Your task to perform on an android device: Check the news Image 0: 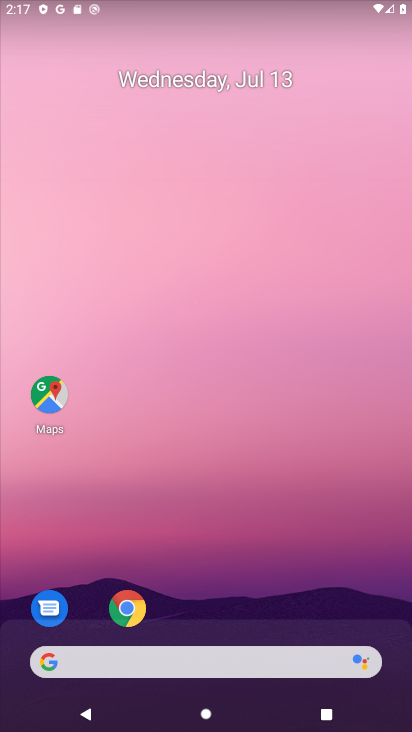
Step 0: drag from (236, 587) to (176, 275)
Your task to perform on an android device: Check the news Image 1: 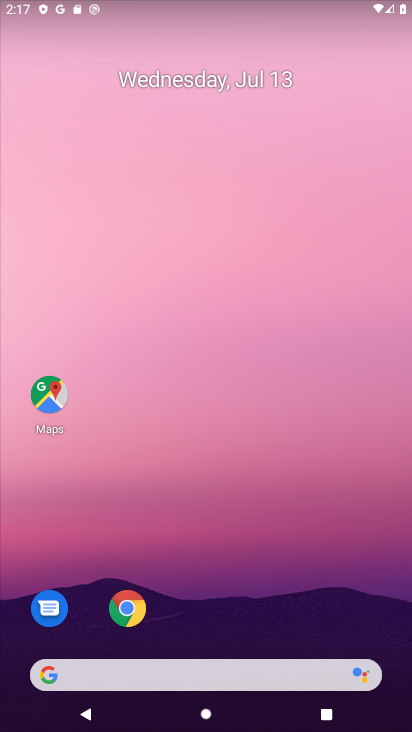
Step 1: click (133, 75)
Your task to perform on an android device: Check the news Image 2: 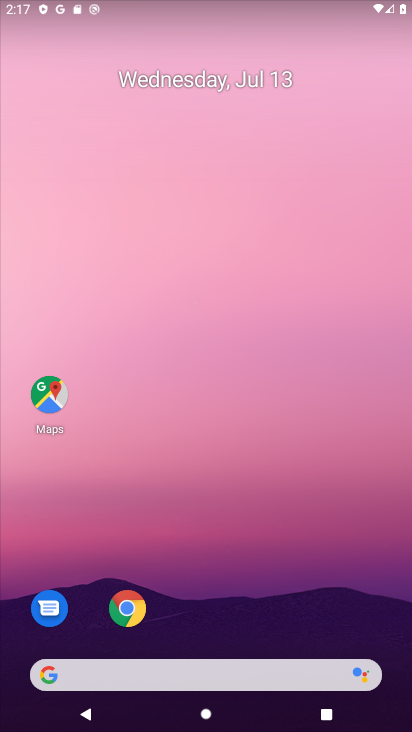
Step 2: click (167, 131)
Your task to perform on an android device: Check the news Image 3: 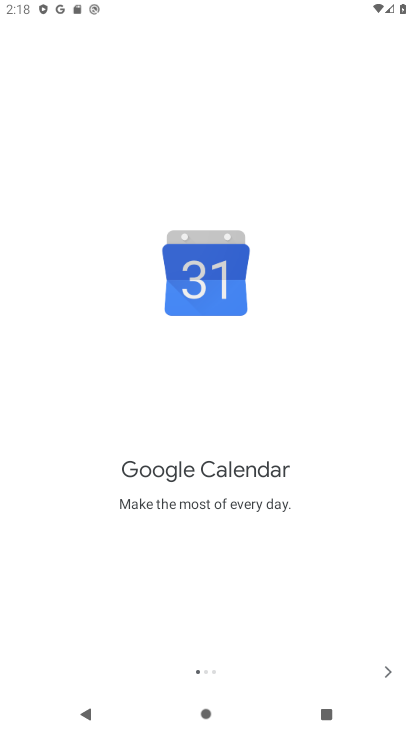
Step 3: press back button
Your task to perform on an android device: Check the news Image 4: 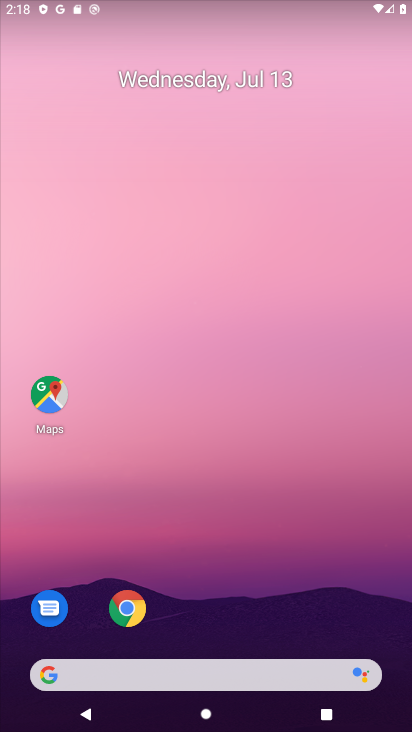
Step 4: drag from (208, 476) to (61, 50)
Your task to perform on an android device: Check the news Image 5: 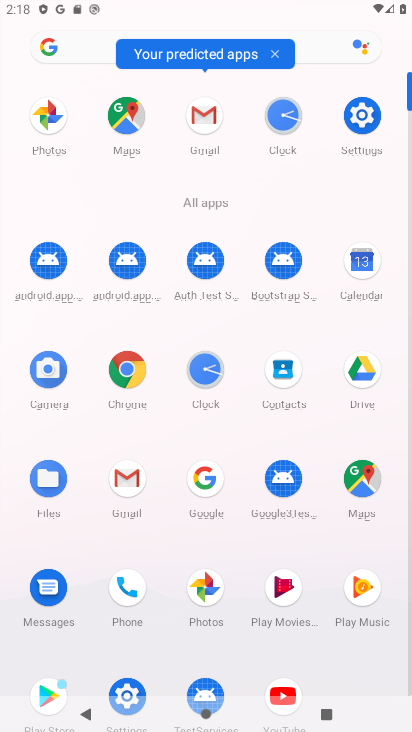
Step 5: click (129, 363)
Your task to perform on an android device: Check the news Image 6: 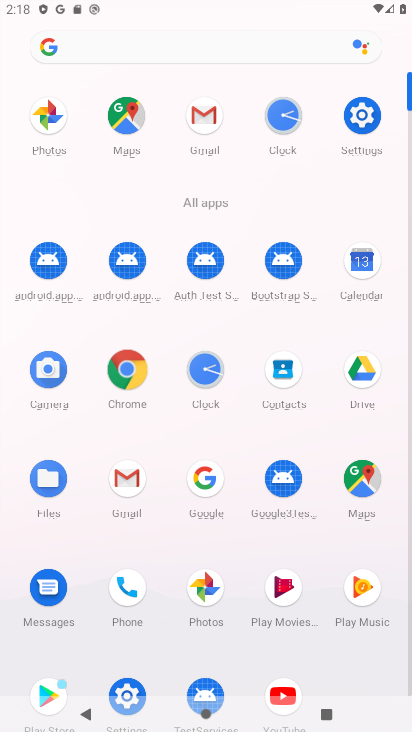
Step 6: click (121, 365)
Your task to perform on an android device: Check the news Image 7: 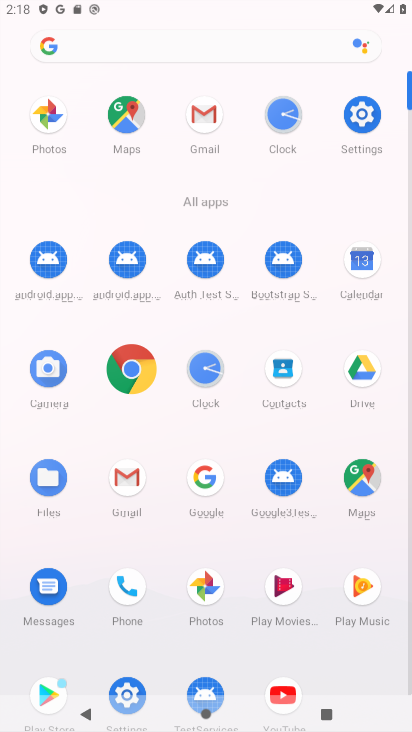
Step 7: click (124, 366)
Your task to perform on an android device: Check the news Image 8: 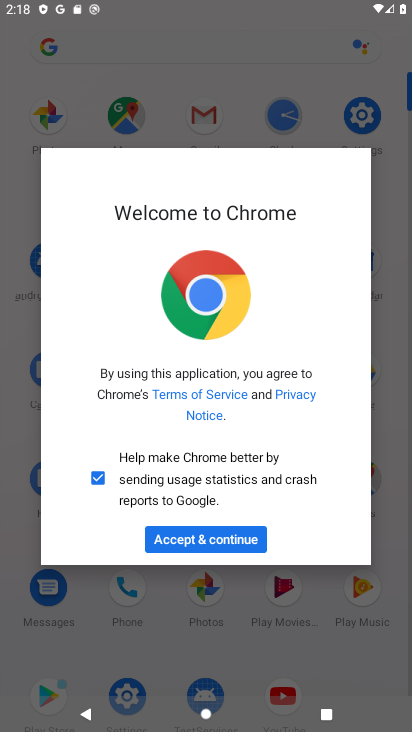
Step 8: click (201, 532)
Your task to perform on an android device: Check the news Image 9: 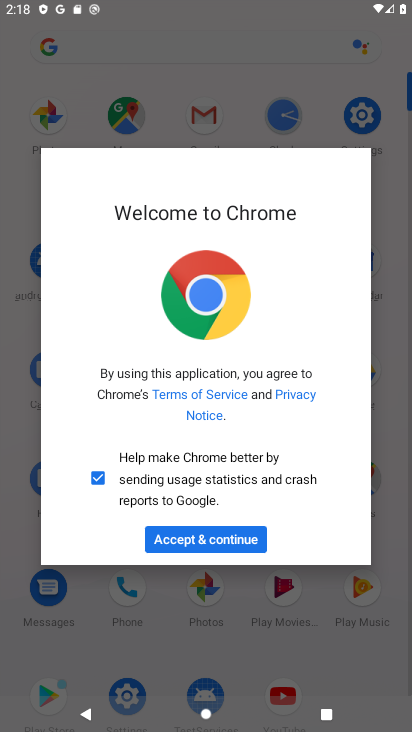
Step 9: click (201, 532)
Your task to perform on an android device: Check the news Image 10: 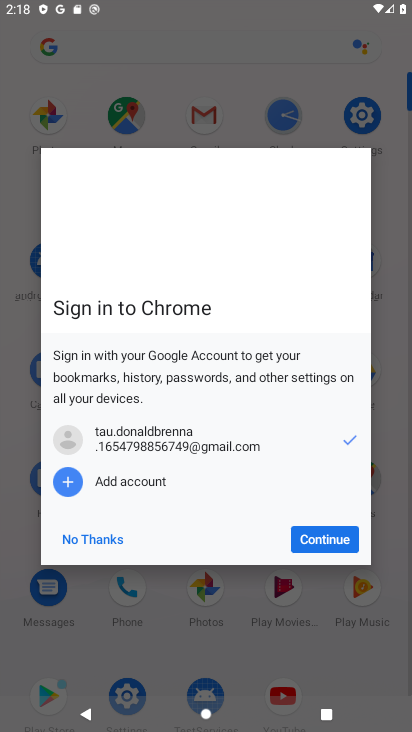
Step 10: click (330, 539)
Your task to perform on an android device: Check the news Image 11: 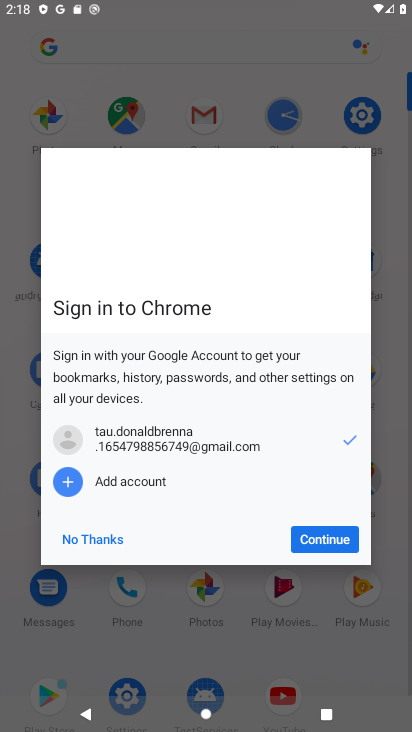
Step 11: click (332, 541)
Your task to perform on an android device: Check the news Image 12: 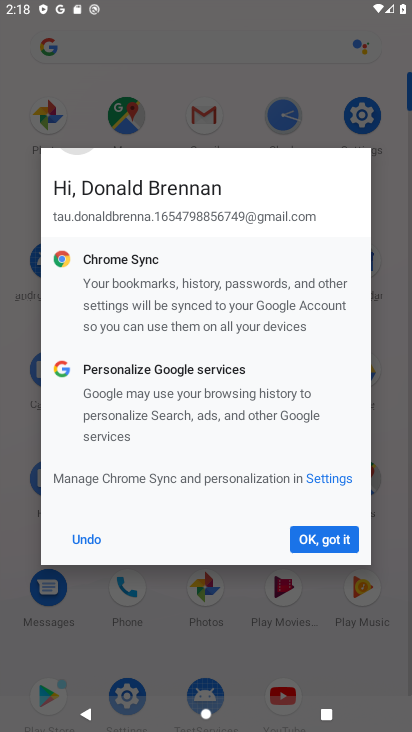
Step 12: click (311, 545)
Your task to perform on an android device: Check the news Image 13: 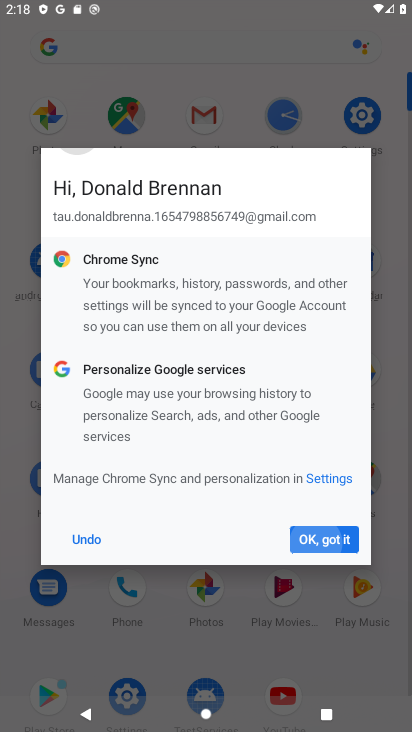
Step 13: click (282, 565)
Your task to perform on an android device: Check the news Image 14: 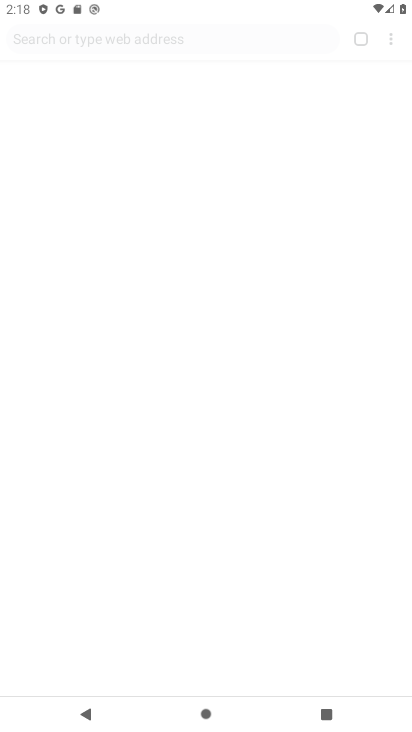
Step 14: click (314, 546)
Your task to perform on an android device: Check the news Image 15: 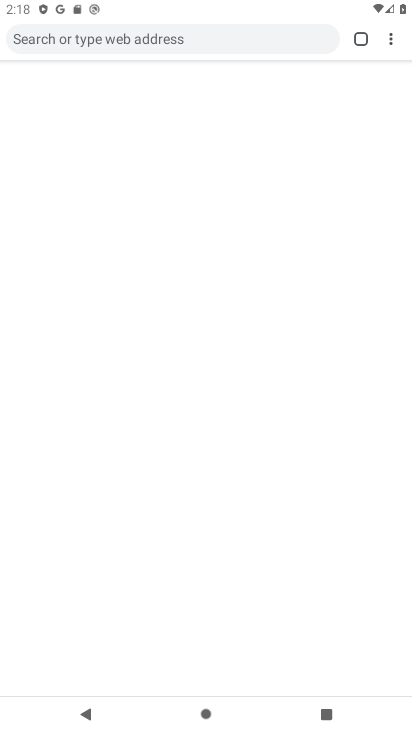
Step 15: click (314, 546)
Your task to perform on an android device: Check the news Image 16: 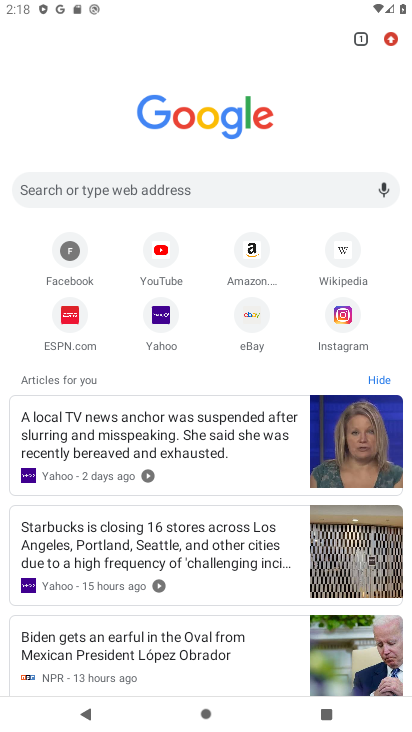
Step 16: task complete